Your task to perform on an android device: Empty the shopping cart on bestbuy. Search for "razer nari" on bestbuy, select the first entry, add it to the cart, then select checkout. Image 0: 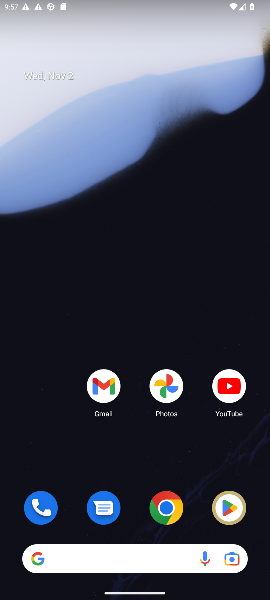
Step 0: click (165, 509)
Your task to perform on an android device: Empty the shopping cart on bestbuy. Search for "razer nari" on bestbuy, select the first entry, add it to the cart, then select checkout. Image 1: 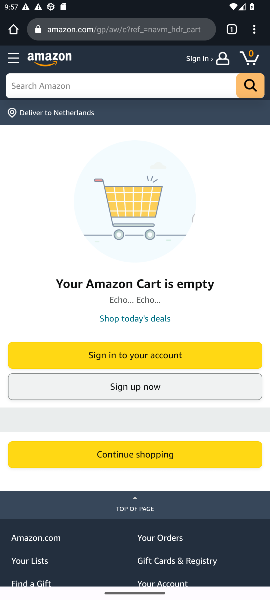
Step 1: click (129, 31)
Your task to perform on an android device: Empty the shopping cart on bestbuy. Search for "razer nari" on bestbuy, select the first entry, add it to the cart, then select checkout. Image 2: 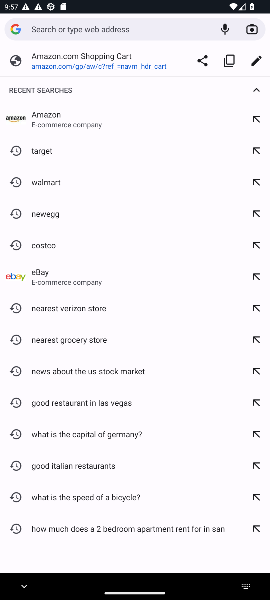
Step 2: type "bestbuy"
Your task to perform on an android device: Empty the shopping cart on bestbuy. Search for "razer nari" on bestbuy, select the first entry, add it to the cart, then select checkout. Image 3: 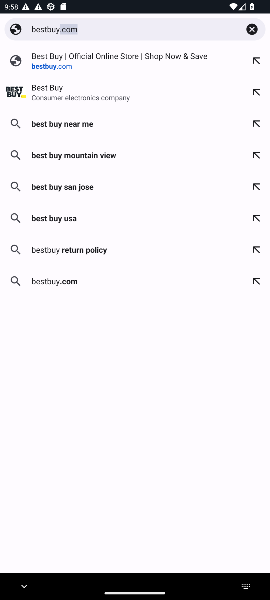
Step 3: click (71, 94)
Your task to perform on an android device: Empty the shopping cart on bestbuy. Search for "razer nari" on bestbuy, select the first entry, add it to the cart, then select checkout. Image 4: 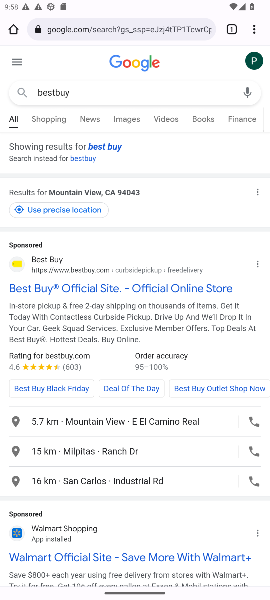
Step 4: drag from (102, 348) to (127, 182)
Your task to perform on an android device: Empty the shopping cart on bestbuy. Search for "razer nari" on bestbuy, select the first entry, add it to the cart, then select checkout. Image 5: 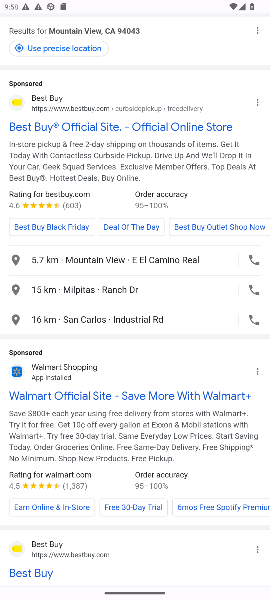
Step 5: click (69, 559)
Your task to perform on an android device: Empty the shopping cart on bestbuy. Search for "razer nari" on bestbuy, select the first entry, add it to the cart, then select checkout. Image 6: 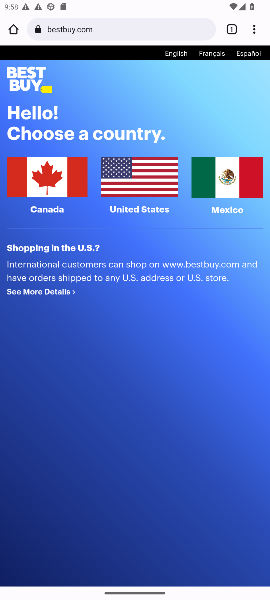
Step 6: click (143, 176)
Your task to perform on an android device: Empty the shopping cart on bestbuy. Search for "razer nari" on bestbuy, select the first entry, add it to the cart, then select checkout. Image 7: 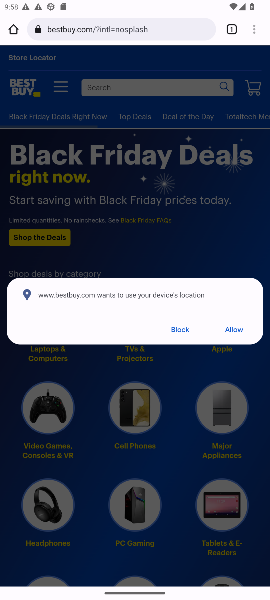
Step 7: click (232, 330)
Your task to perform on an android device: Empty the shopping cart on bestbuy. Search for "razer nari" on bestbuy, select the first entry, add it to the cart, then select checkout. Image 8: 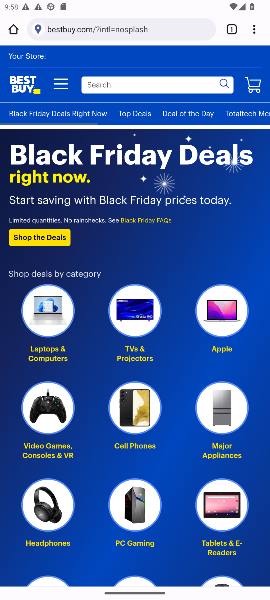
Step 8: click (253, 89)
Your task to perform on an android device: Empty the shopping cart on bestbuy. Search for "razer nari" on bestbuy, select the first entry, add it to the cart, then select checkout. Image 9: 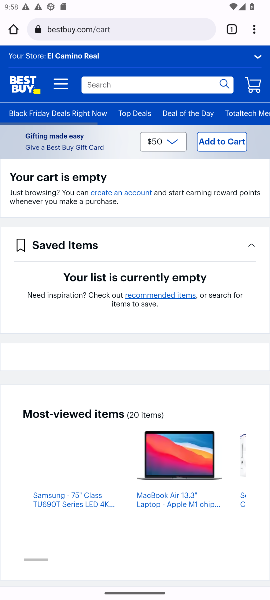
Step 9: click (149, 81)
Your task to perform on an android device: Empty the shopping cart on bestbuy. Search for "razer nari" on bestbuy, select the first entry, add it to the cart, then select checkout. Image 10: 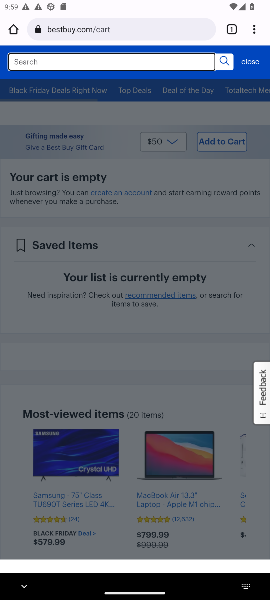
Step 10: type "razer nari"
Your task to perform on an android device: Empty the shopping cart on bestbuy. Search for "razer nari" on bestbuy, select the first entry, add it to the cart, then select checkout. Image 11: 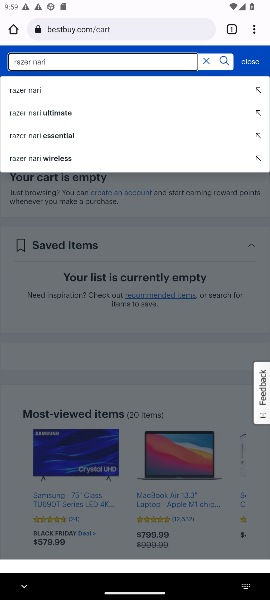
Step 11: click (227, 63)
Your task to perform on an android device: Empty the shopping cart on bestbuy. Search for "razer nari" on bestbuy, select the first entry, add it to the cart, then select checkout. Image 12: 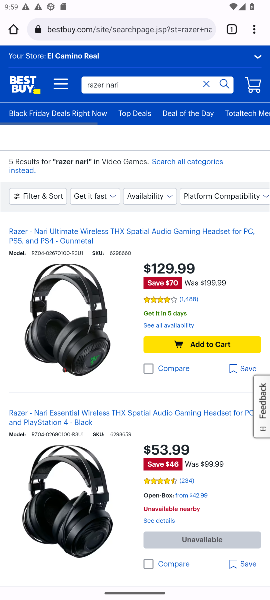
Step 12: click (196, 344)
Your task to perform on an android device: Empty the shopping cart on bestbuy. Search for "razer nari" on bestbuy, select the first entry, add it to the cart, then select checkout. Image 13: 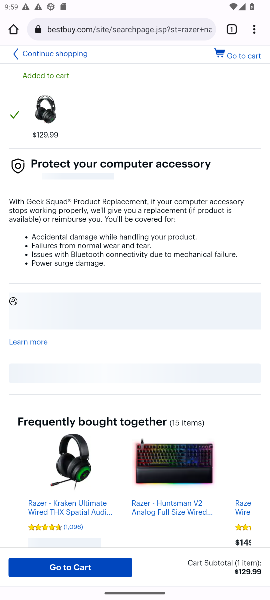
Step 13: click (78, 569)
Your task to perform on an android device: Empty the shopping cart on bestbuy. Search for "razer nari" on bestbuy, select the first entry, add it to the cart, then select checkout. Image 14: 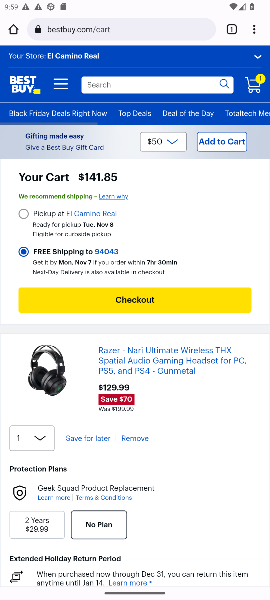
Step 14: click (143, 301)
Your task to perform on an android device: Empty the shopping cart on bestbuy. Search for "razer nari" on bestbuy, select the first entry, add it to the cart, then select checkout. Image 15: 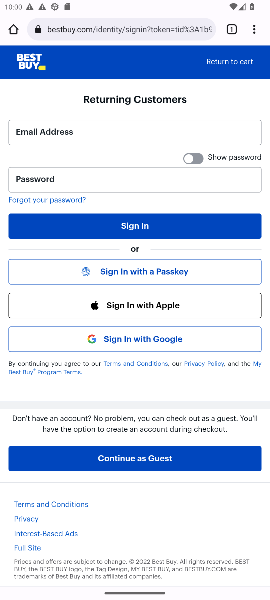
Step 15: task complete